Your task to perform on an android device: What's on my calendar tomorrow? Image 0: 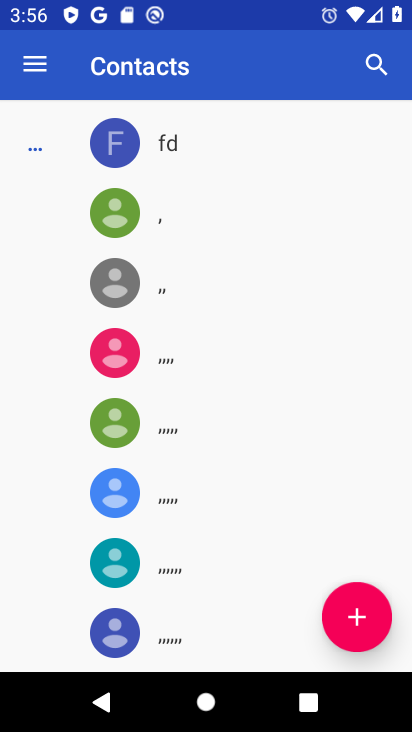
Step 0: press home button
Your task to perform on an android device: What's on my calendar tomorrow? Image 1: 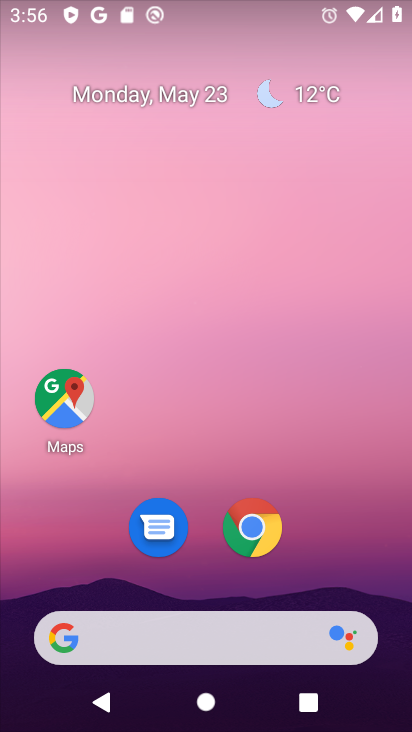
Step 1: drag from (210, 576) to (228, 97)
Your task to perform on an android device: What's on my calendar tomorrow? Image 2: 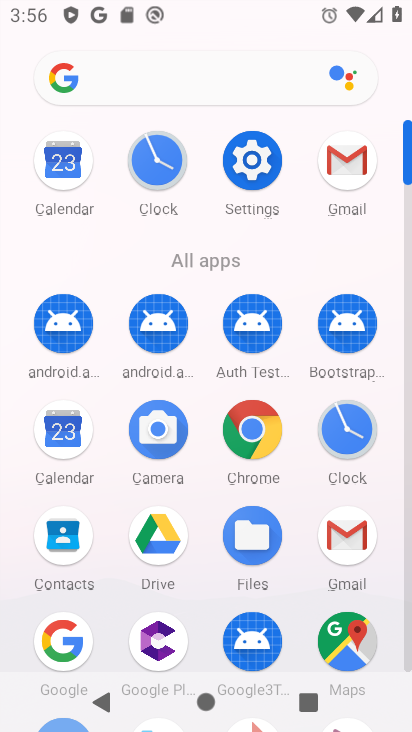
Step 2: click (63, 424)
Your task to perform on an android device: What's on my calendar tomorrow? Image 3: 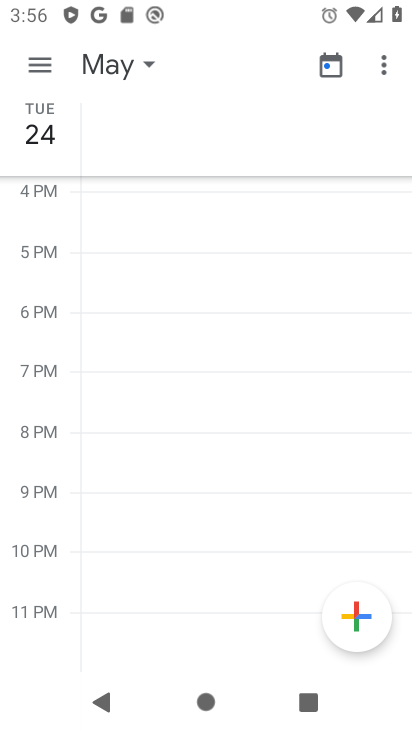
Step 3: click (149, 60)
Your task to perform on an android device: What's on my calendar tomorrow? Image 4: 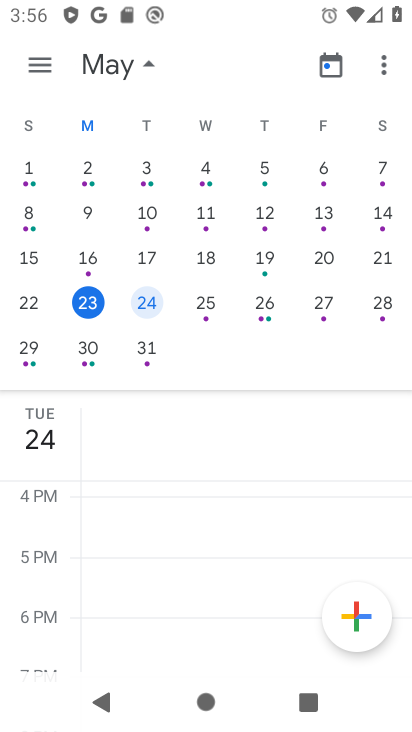
Step 4: click (62, 456)
Your task to perform on an android device: What's on my calendar tomorrow? Image 5: 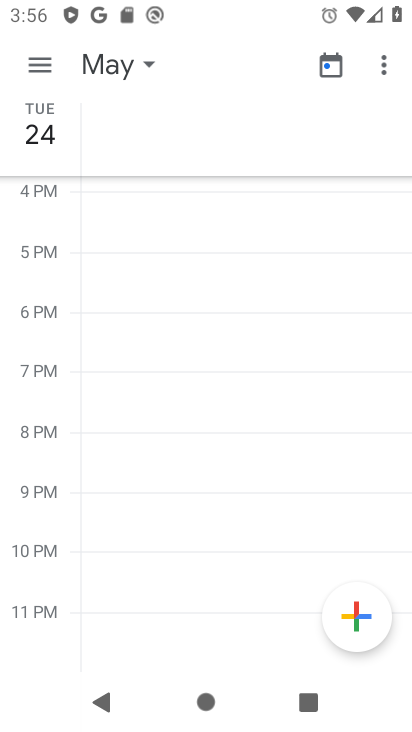
Step 5: click (152, 63)
Your task to perform on an android device: What's on my calendar tomorrow? Image 6: 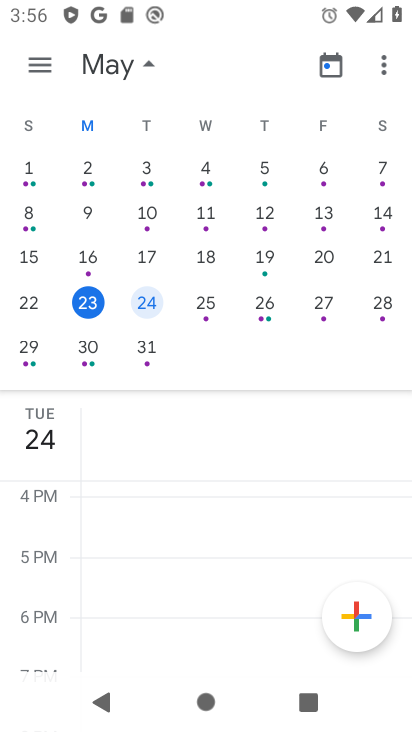
Step 6: click (147, 67)
Your task to perform on an android device: What's on my calendar tomorrow? Image 7: 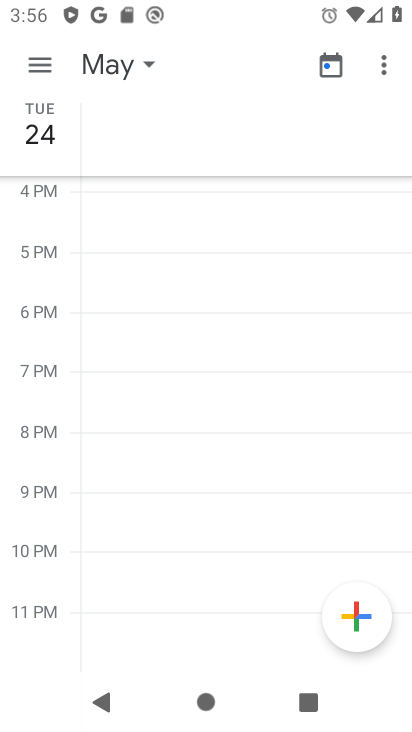
Step 7: task complete